Your task to perform on an android device: Go to battery settings Image 0: 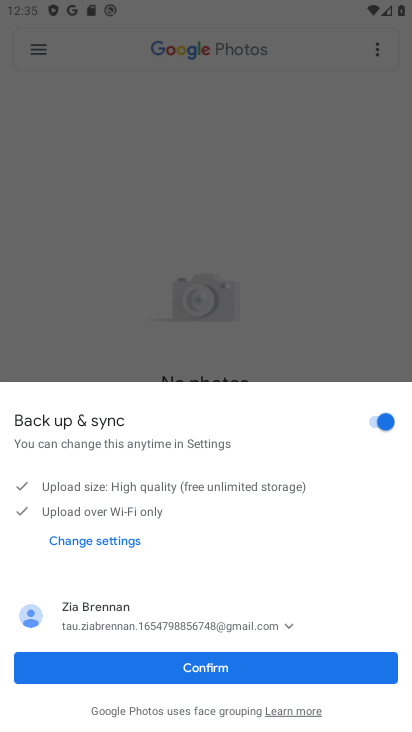
Step 0: press home button
Your task to perform on an android device: Go to battery settings Image 1: 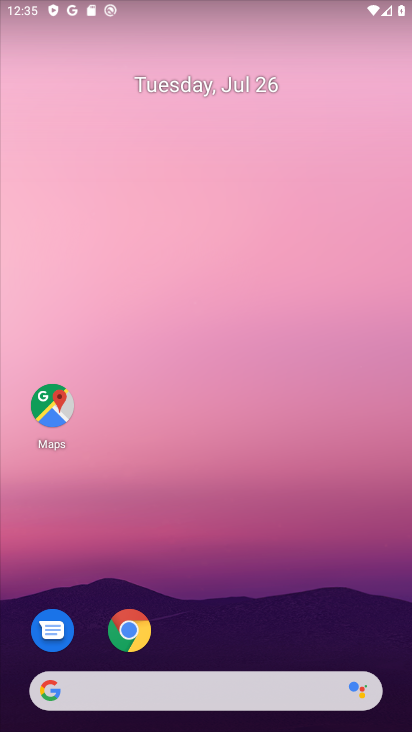
Step 1: drag from (257, 543) to (133, 49)
Your task to perform on an android device: Go to battery settings Image 2: 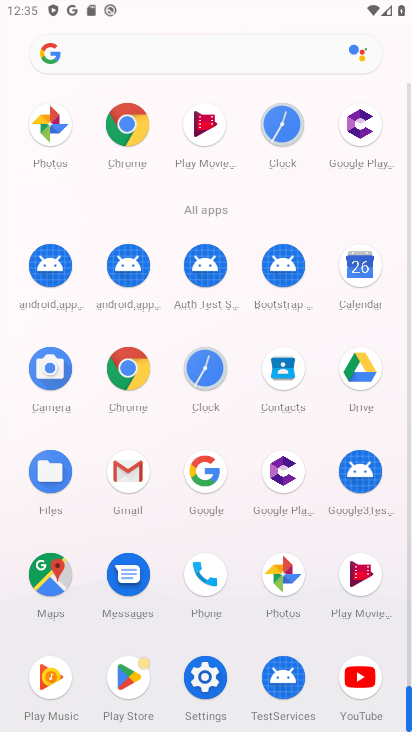
Step 2: click (210, 670)
Your task to perform on an android device: Go to battery settings Image 3: 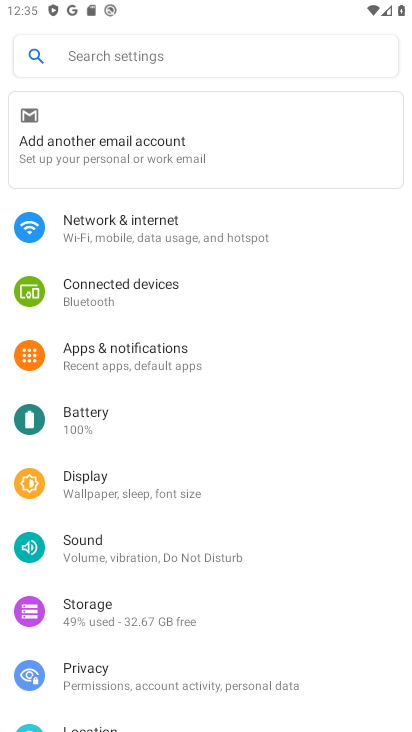
Step 3: click (81, 423)
Your task to perform on an android device: Go to battery settings Image 4: 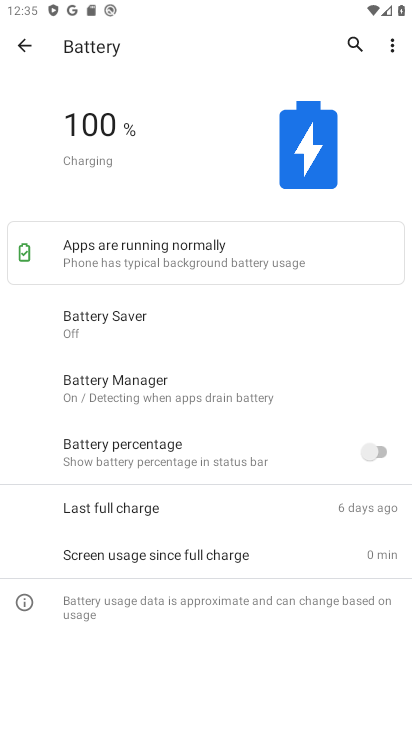
Step 4: task complete